Your task to perform on an android device: Go to privacy settings Image 0: 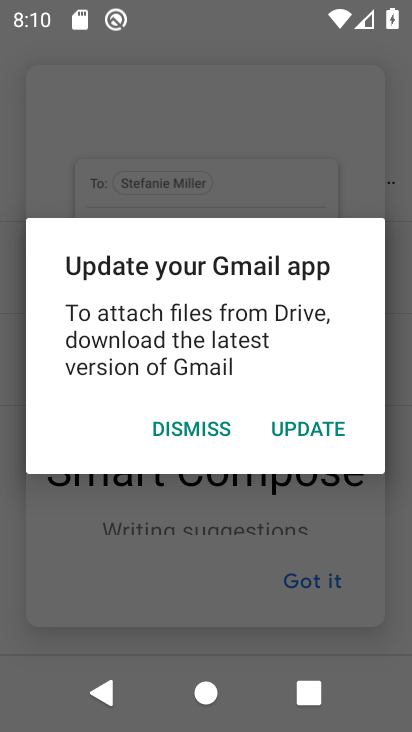
Step 0: press home button
Your task to perform on an android device: Go to privacy settings Image 1: 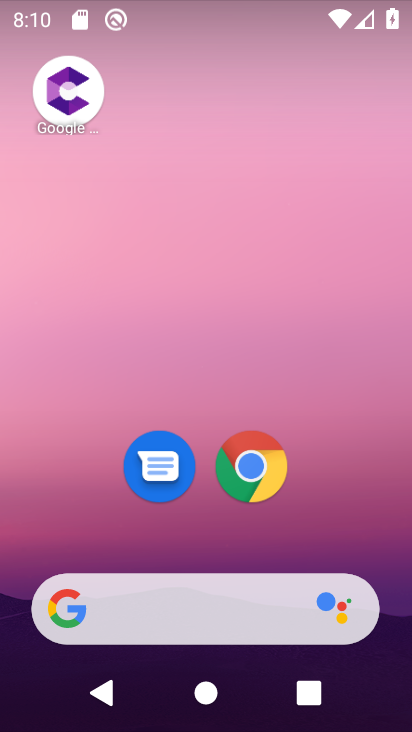
Step 1: drag from (228, 582) to (222, 162)
Your task to perform on an android device: Go to privacy settings Image 2: 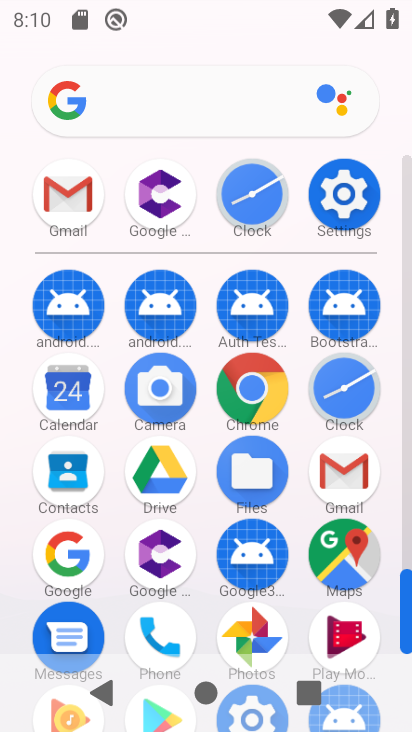
Step 2: click (336, 209)
Your task to perform on an android device: Go to privacy settings Image 3: 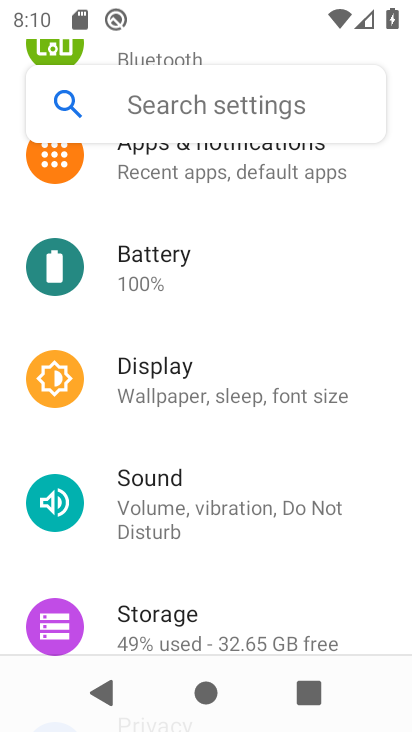
Step 3: drag from (202, 617) to (211, 248)
Your task to perform on an android device: Go to privacy settings Image 4: 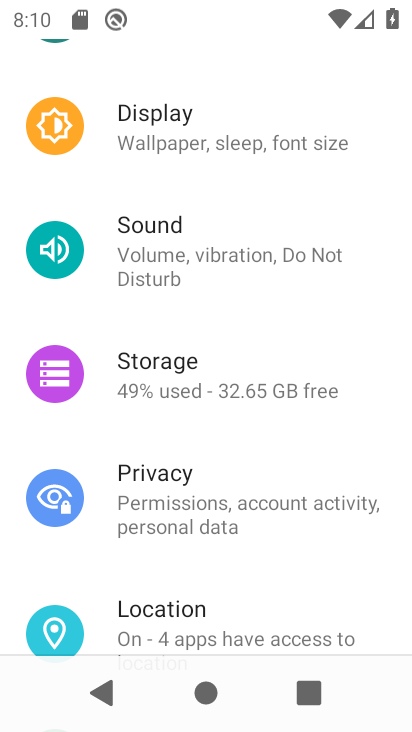
Step 4: click (198, 496)
Your task to perform on an android device: Go to privacy settings Image 5: 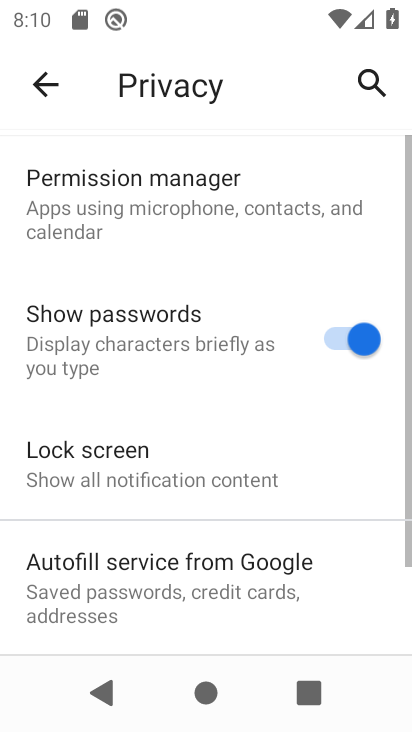
Step 5: drag from (203, 615) to (208, 276)
Your task to perform on an android device: Go to privacy settings Image 6: 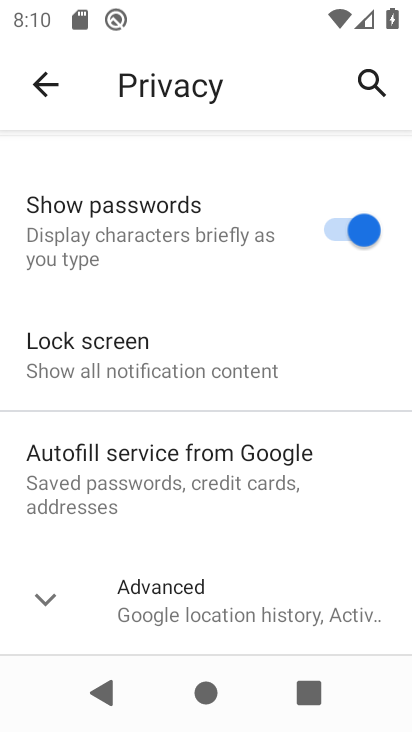
Step 6: click (193, 604)
Your task to perform on an android device: Go to privacy settings Image 7: 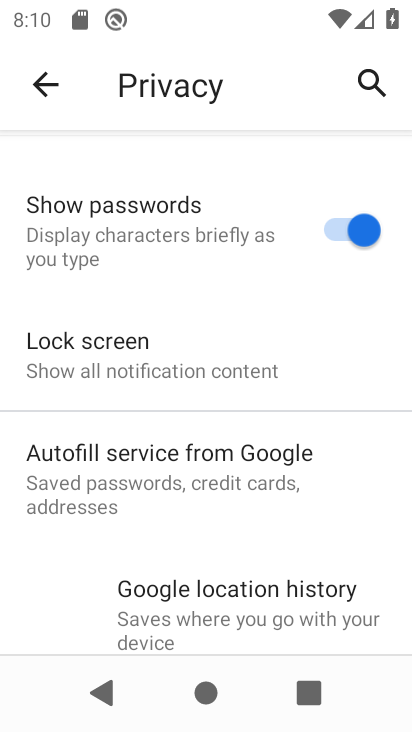
Step 7: task complete